Your task to perform on an android device: toggle wifi Image 0: 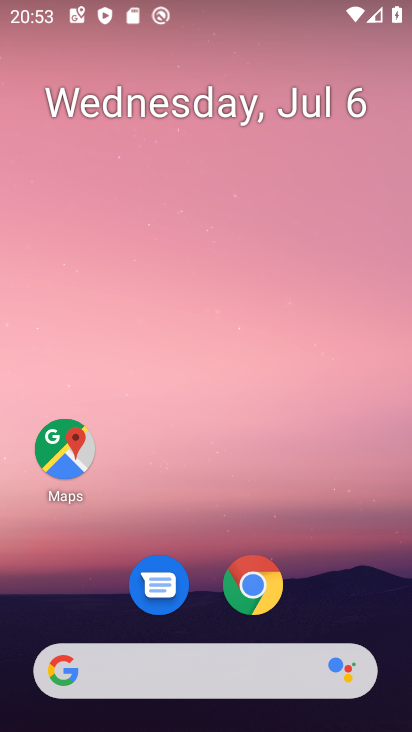
Step 0: drag from (211, 432) to (263, 21)
Your task to perform on an android device: toggle wifi Image 1: 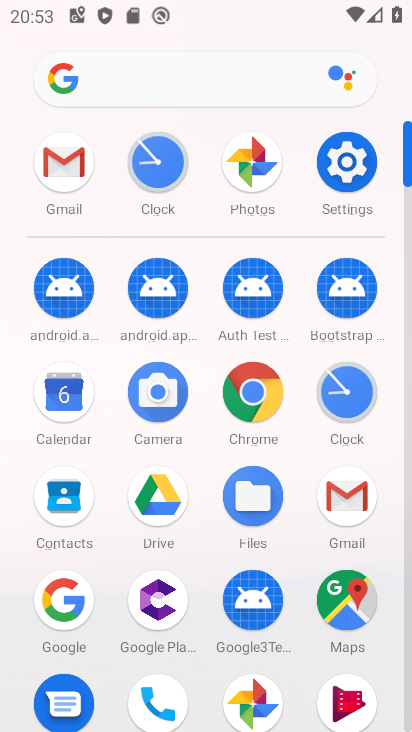
Step 1: click (348, 153)
Your task to perform on an android device: toggle wifi Image 2: 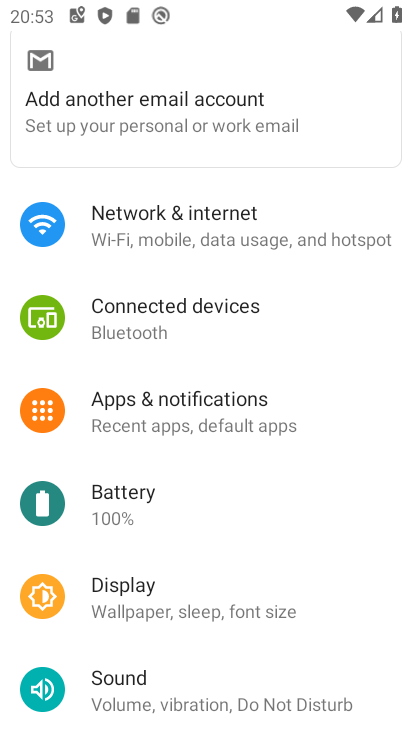
Step 2: click (272, 220)
Your task to perform on an android device: toggle wifi Image 3: 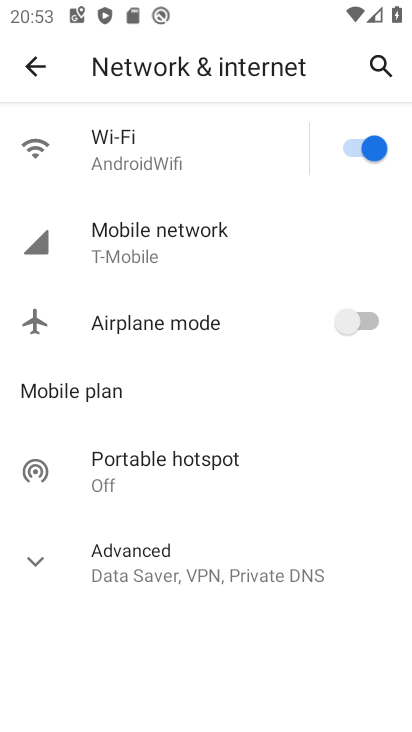
Step 3: click (358, 139)
Your task to perform on an android device: toggle wifi Image 4: 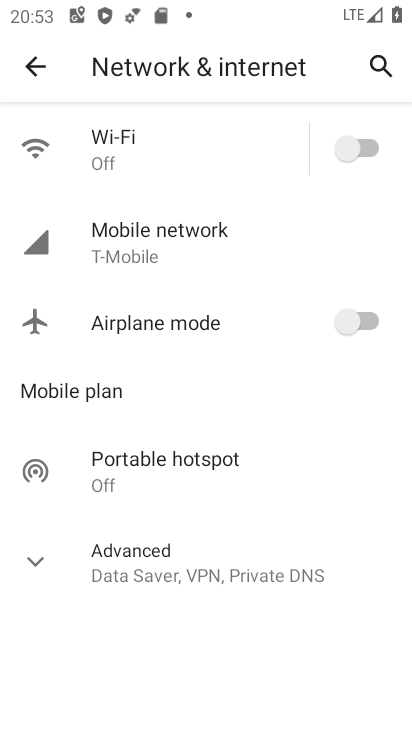
Step 4: task complete